Your task to perform on an android device: search for starred emails in the gmail app Image 0: 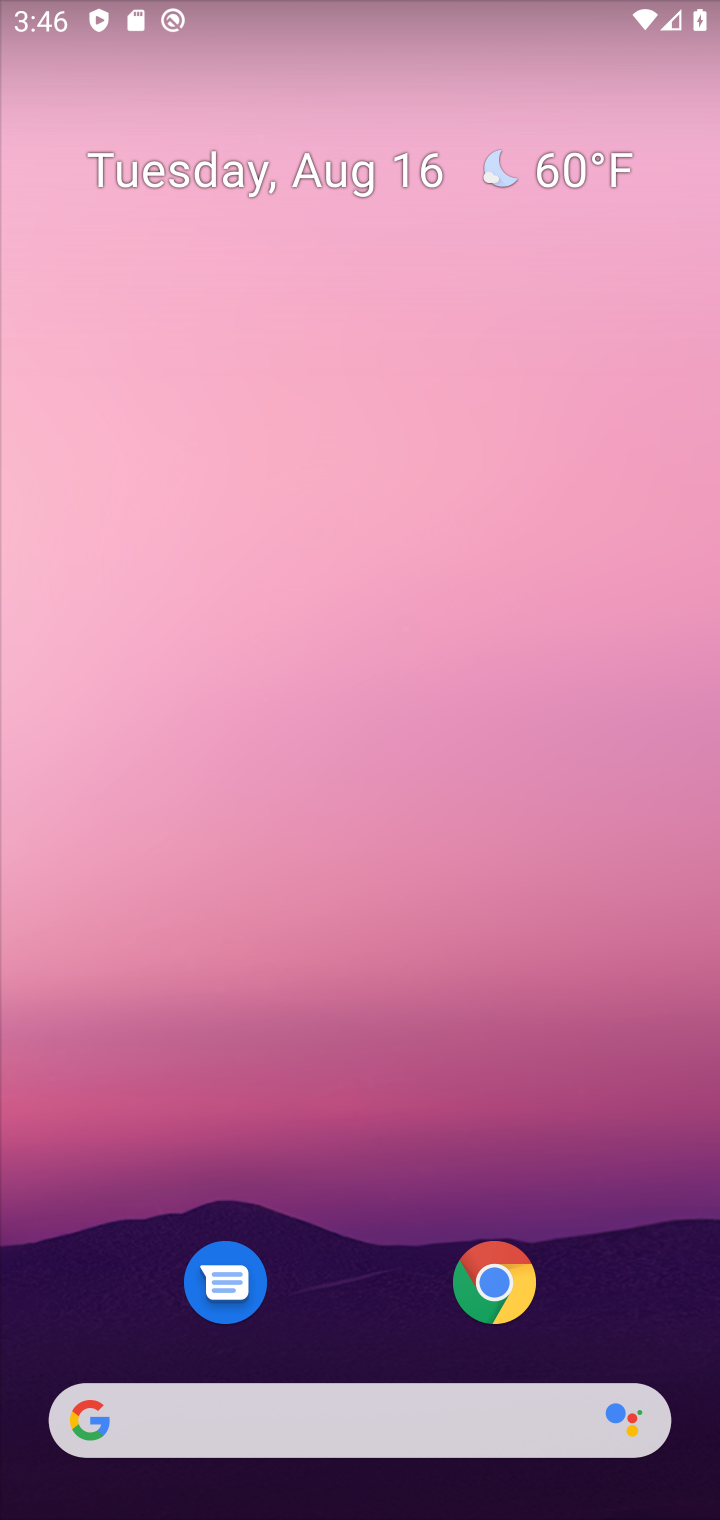
Step 0: drag from (373, 1218) to (523, 123)
Your task to perform on an android device: search for starred emails in the gmail app Image 1: 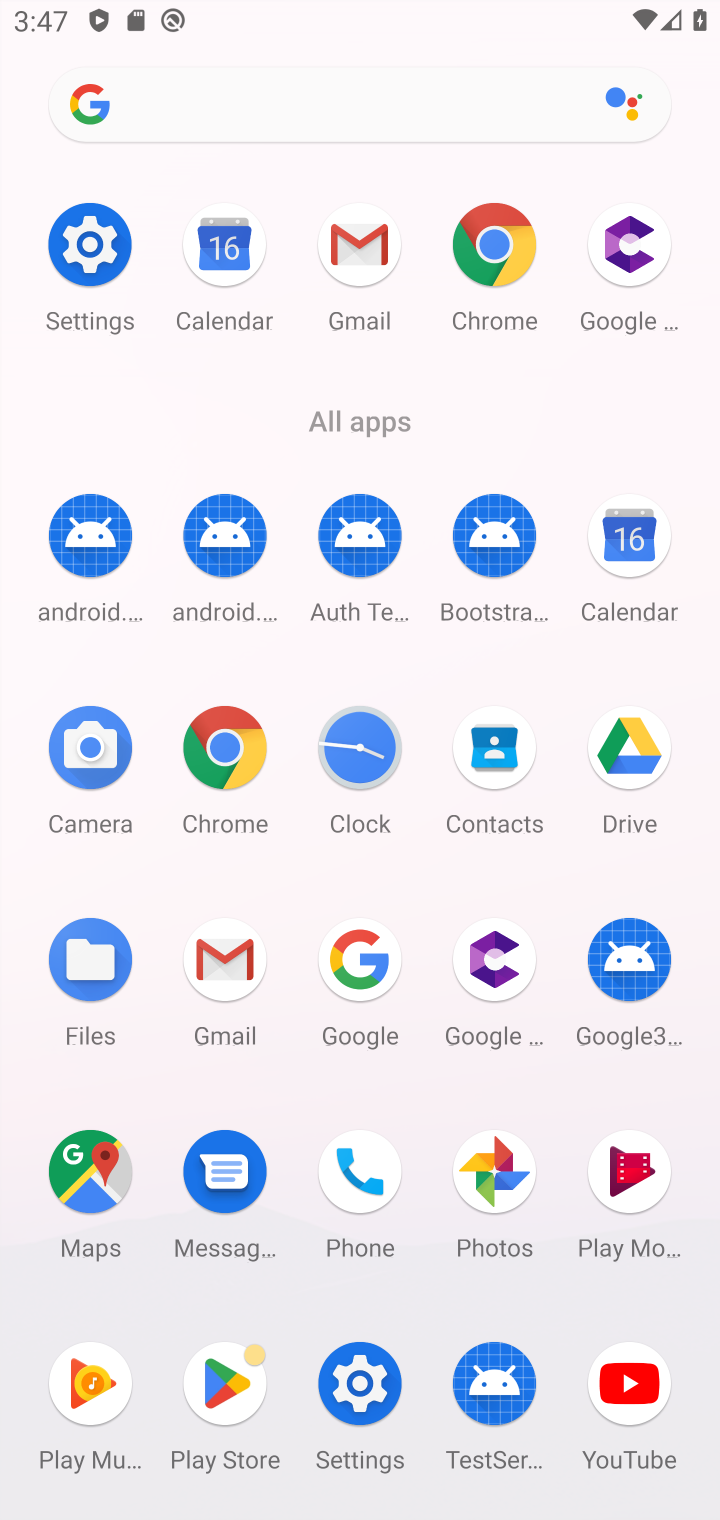
Step 1: click (356, 224)
Your task to perform on an android device: search for starred emails in the gmail app Image 2: 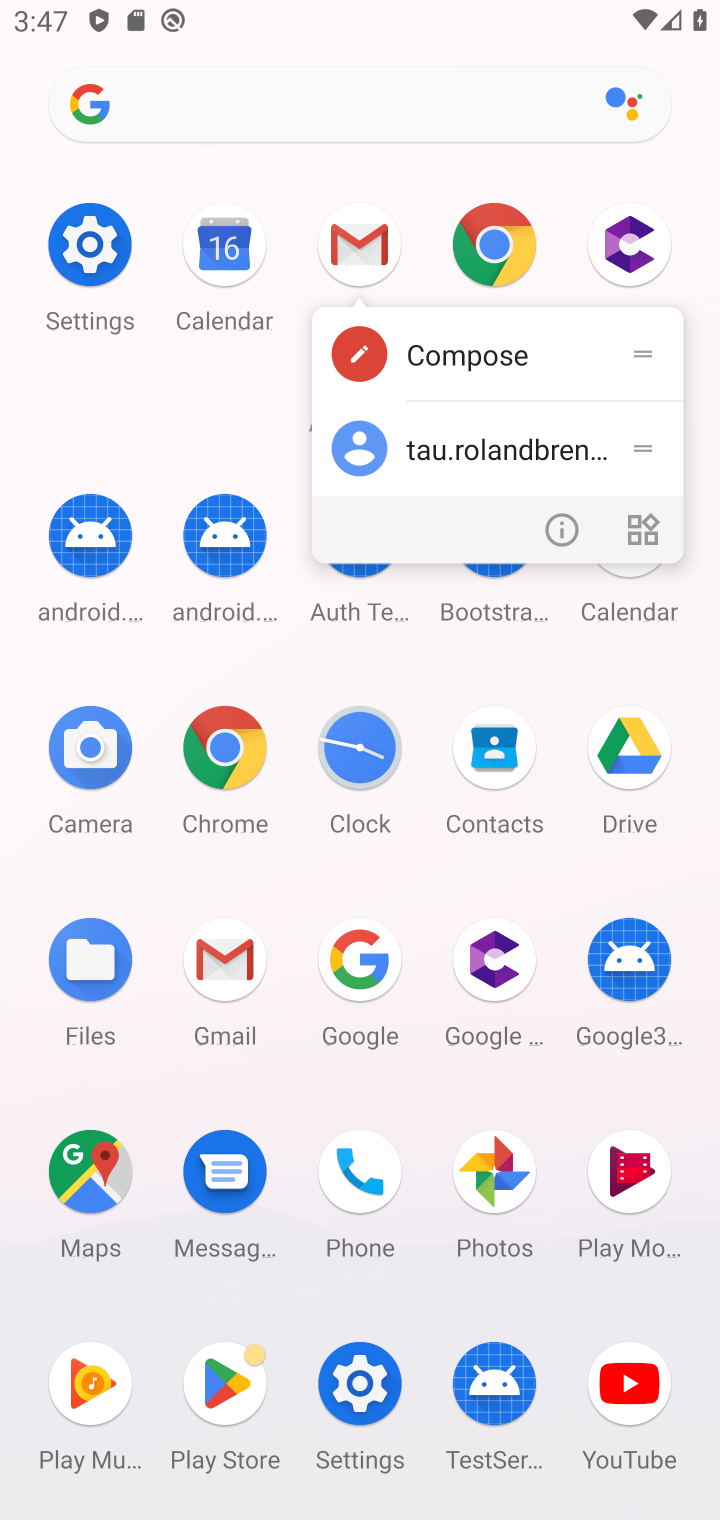
Step 2: click (359, 223)
Your task to perform on an android device: search for starred emails in the gmail app Image 3: 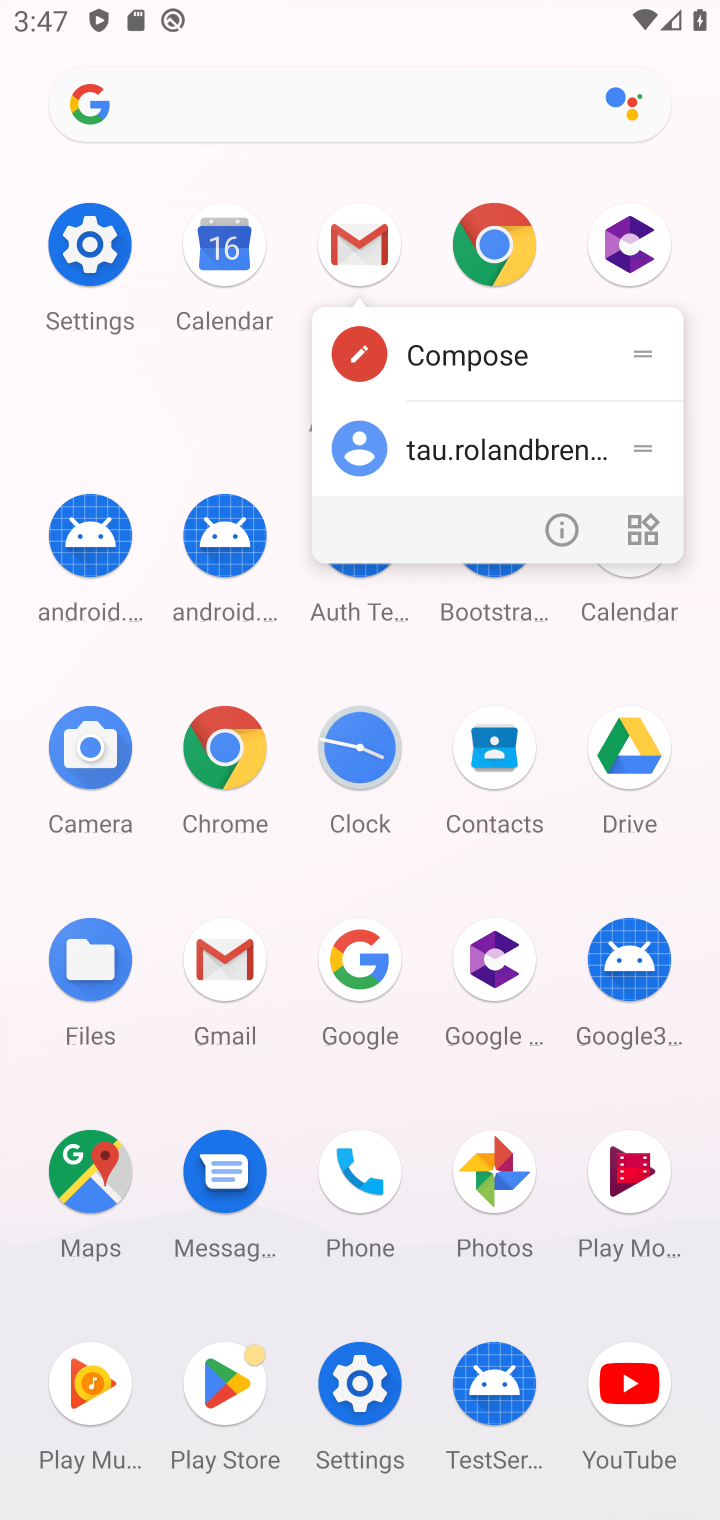
Step 3: click (370, 244)
Your task to perform on an android device: search for starred emails in the gmail app Image 4: 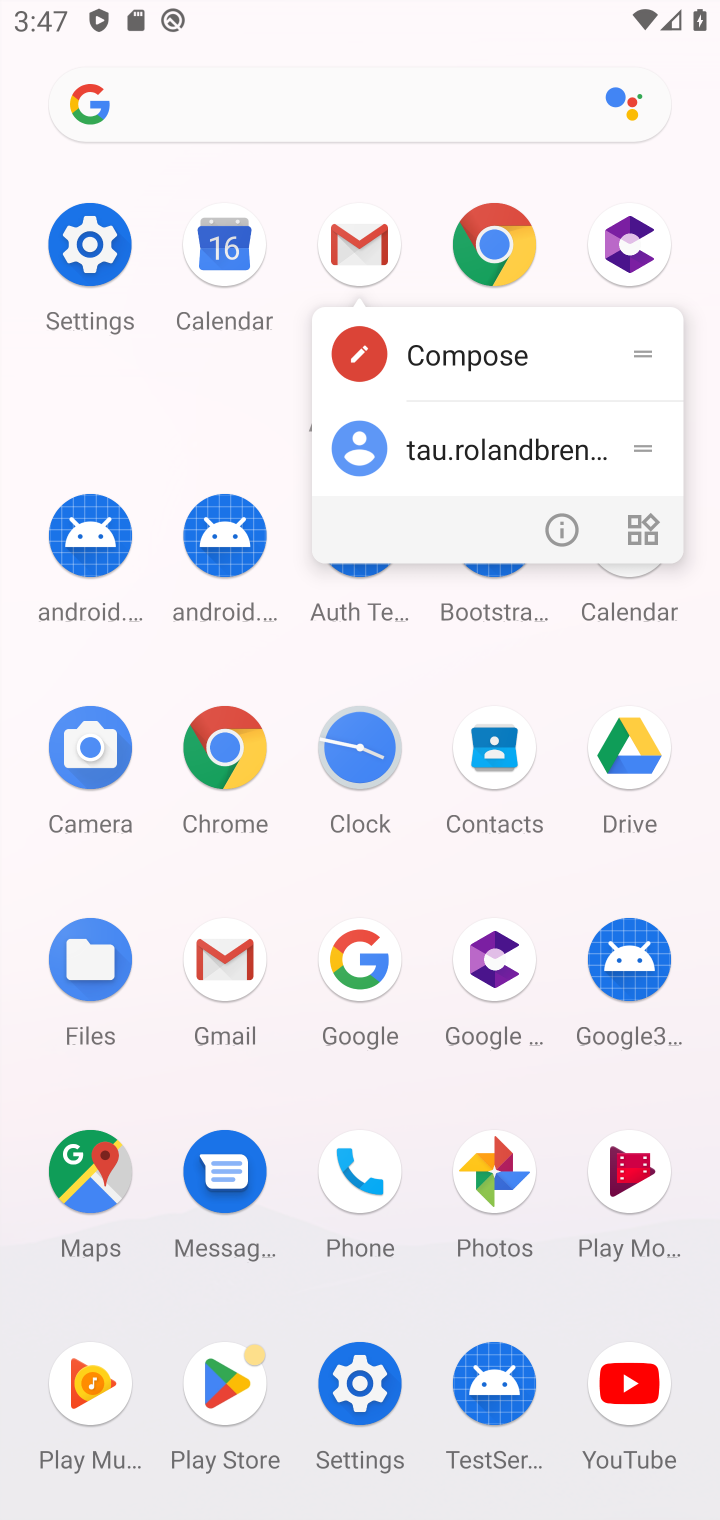
Step 4: click (337, 231)
Your task to perform on an android device: search for starred emails in the gmail app Image 5: 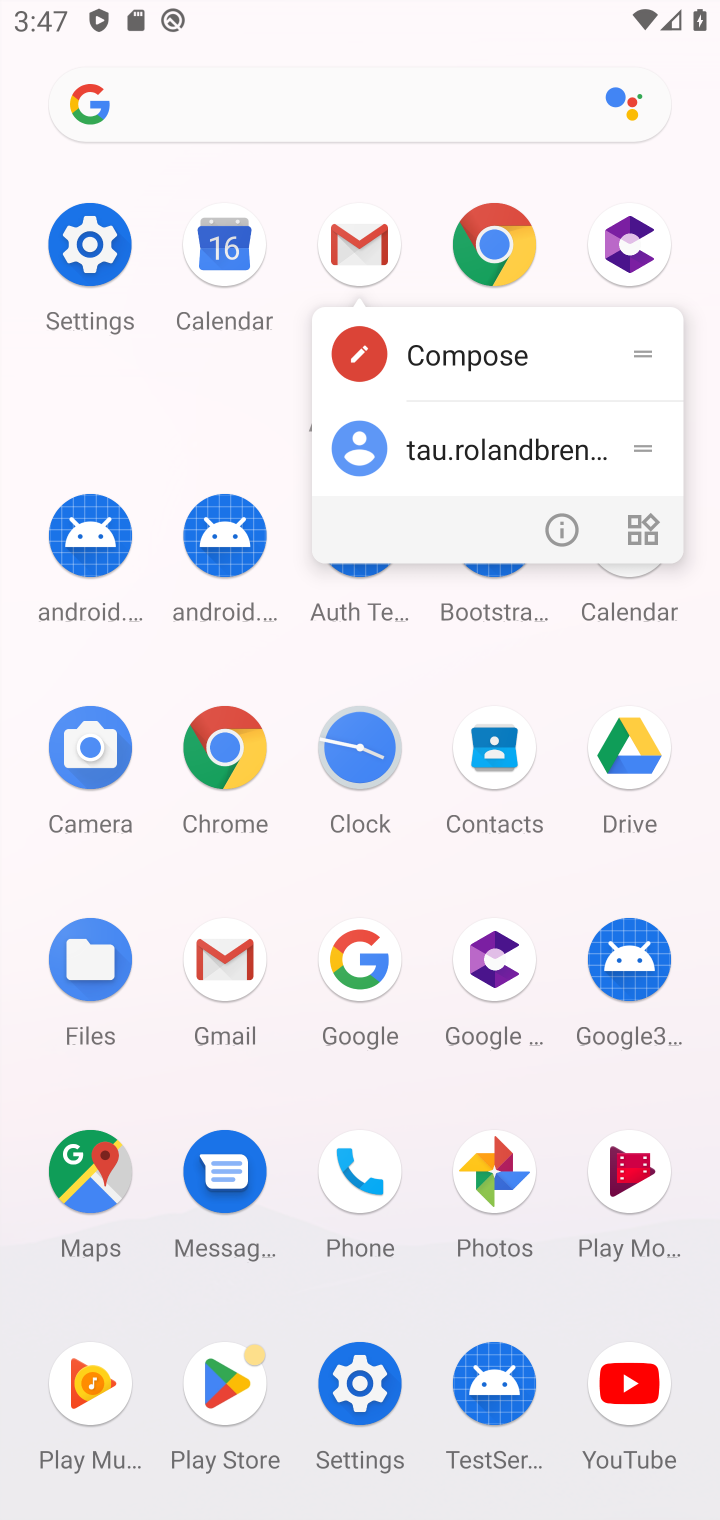
Step 5: click (354, 238)
Your task to perform on an android device: search for starred emails in the gmail app Image 6: 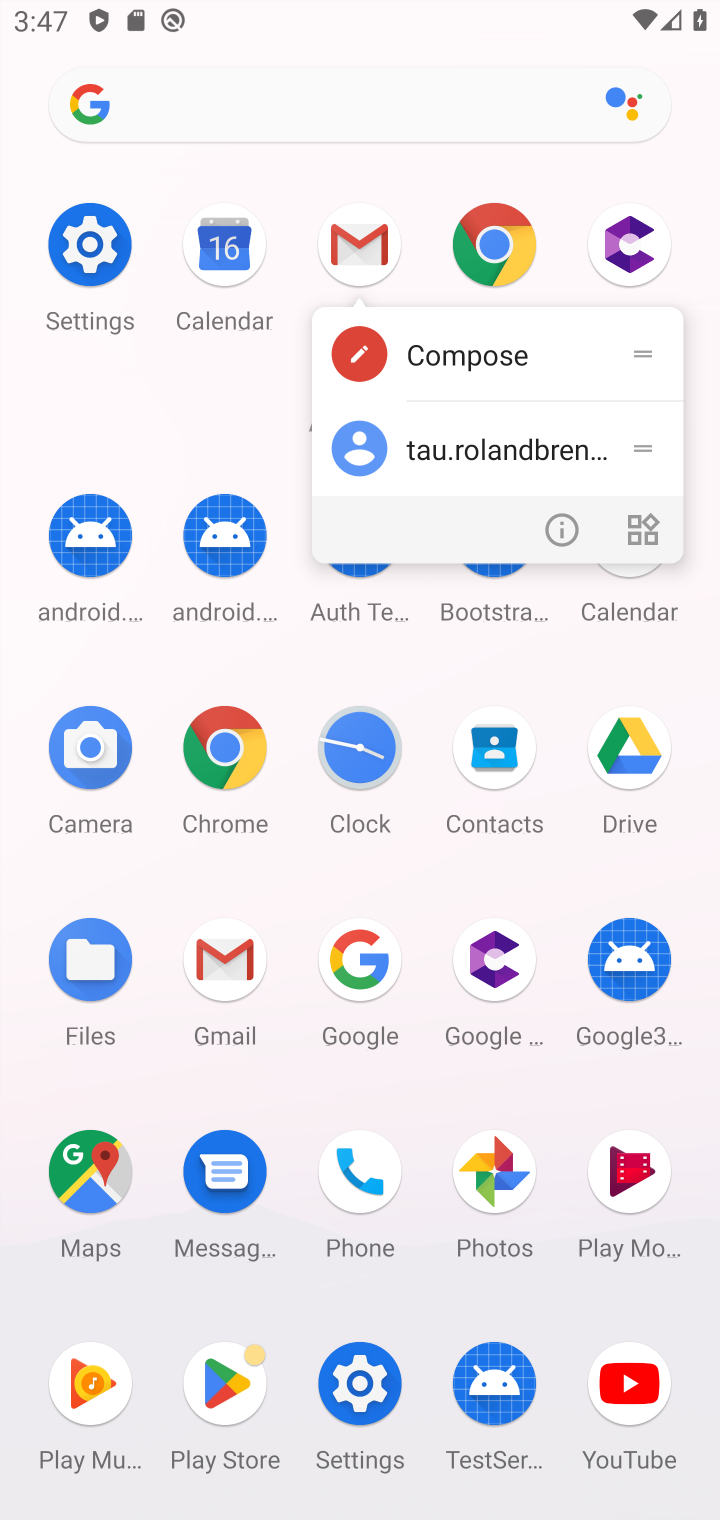
Step 6: click (362, 274)
Your task to perform on an android device: search for starred emails in the gmail app Image 7: 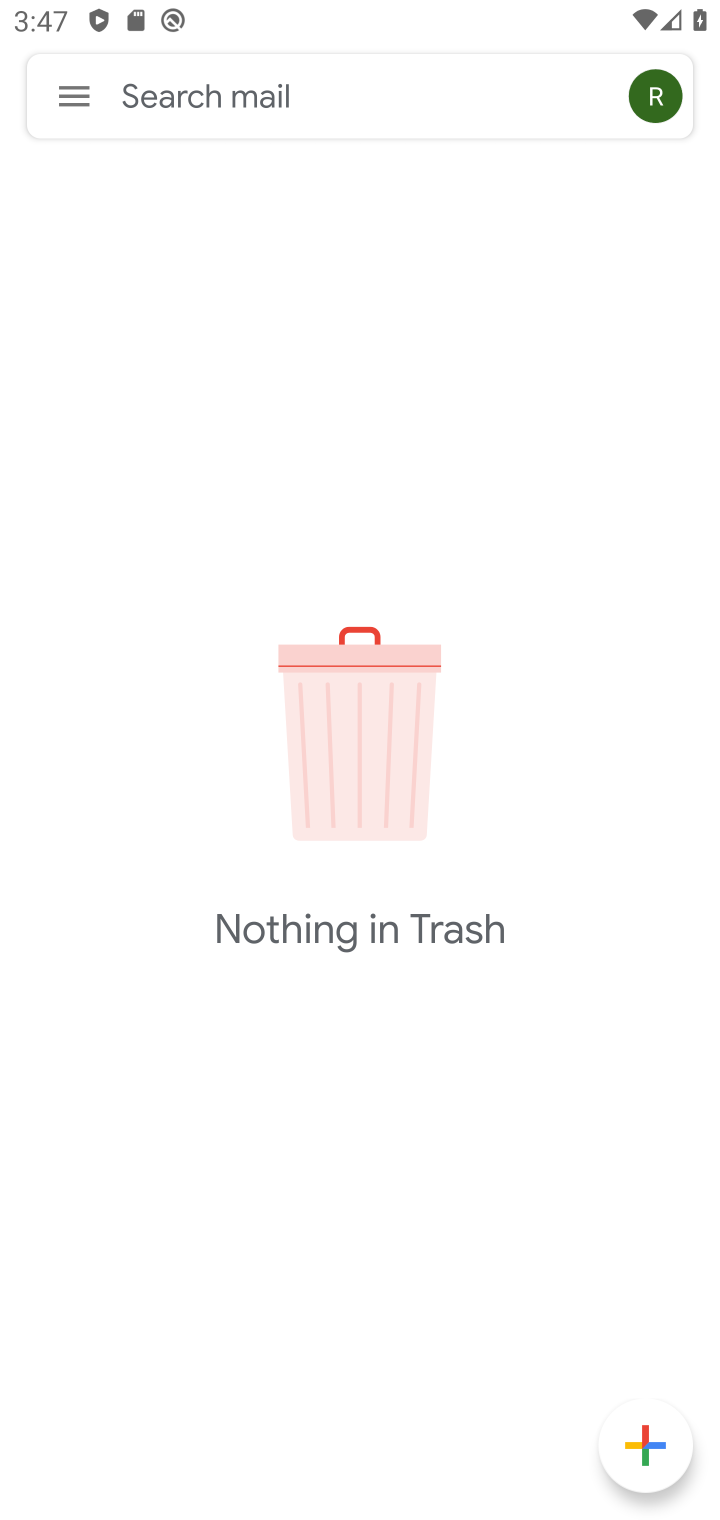
Step 7: click (63, 76)
Your task to perform on an android device: search for starred emails in the gmail app Image 8: 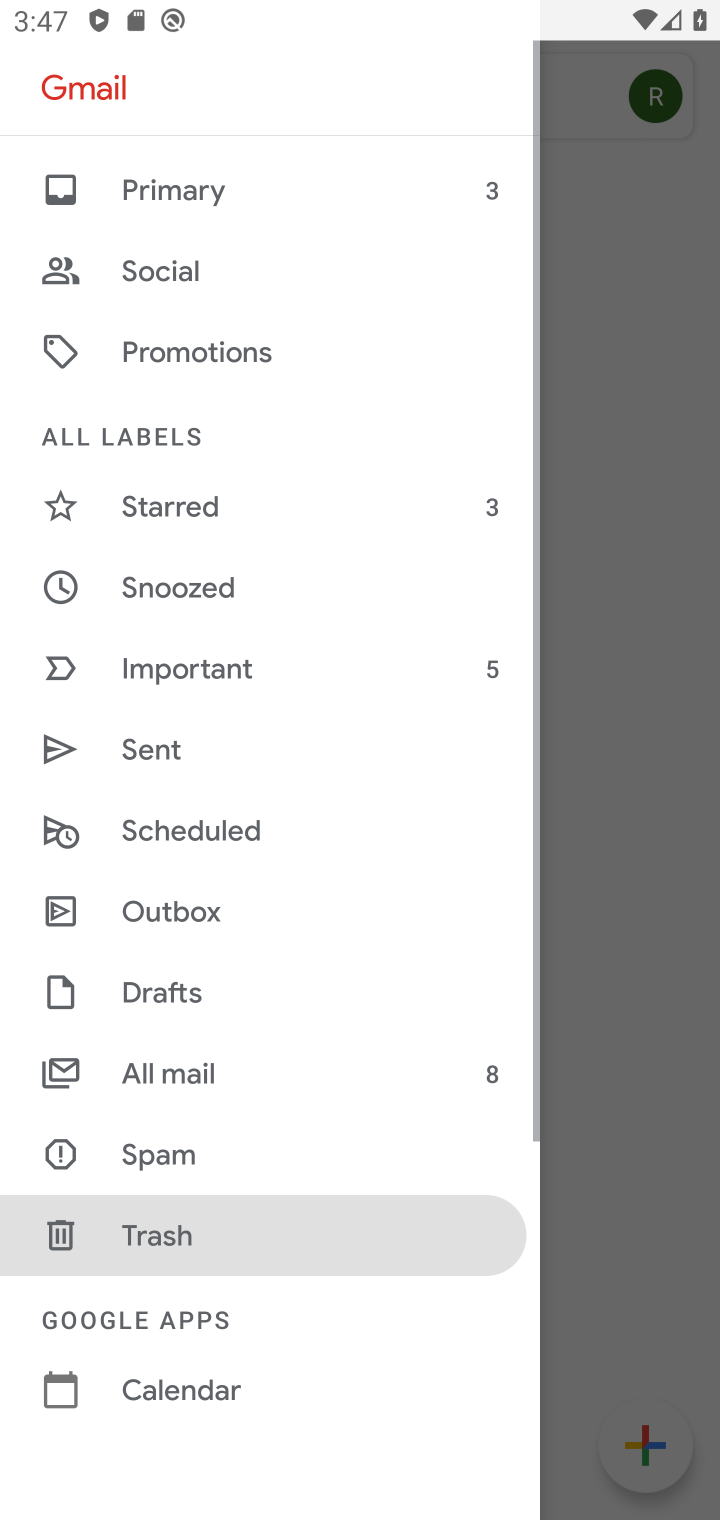
Step 8: click (184, 498)
Your task to perform on an android device: search for starred emails in the gmail app Image 9: 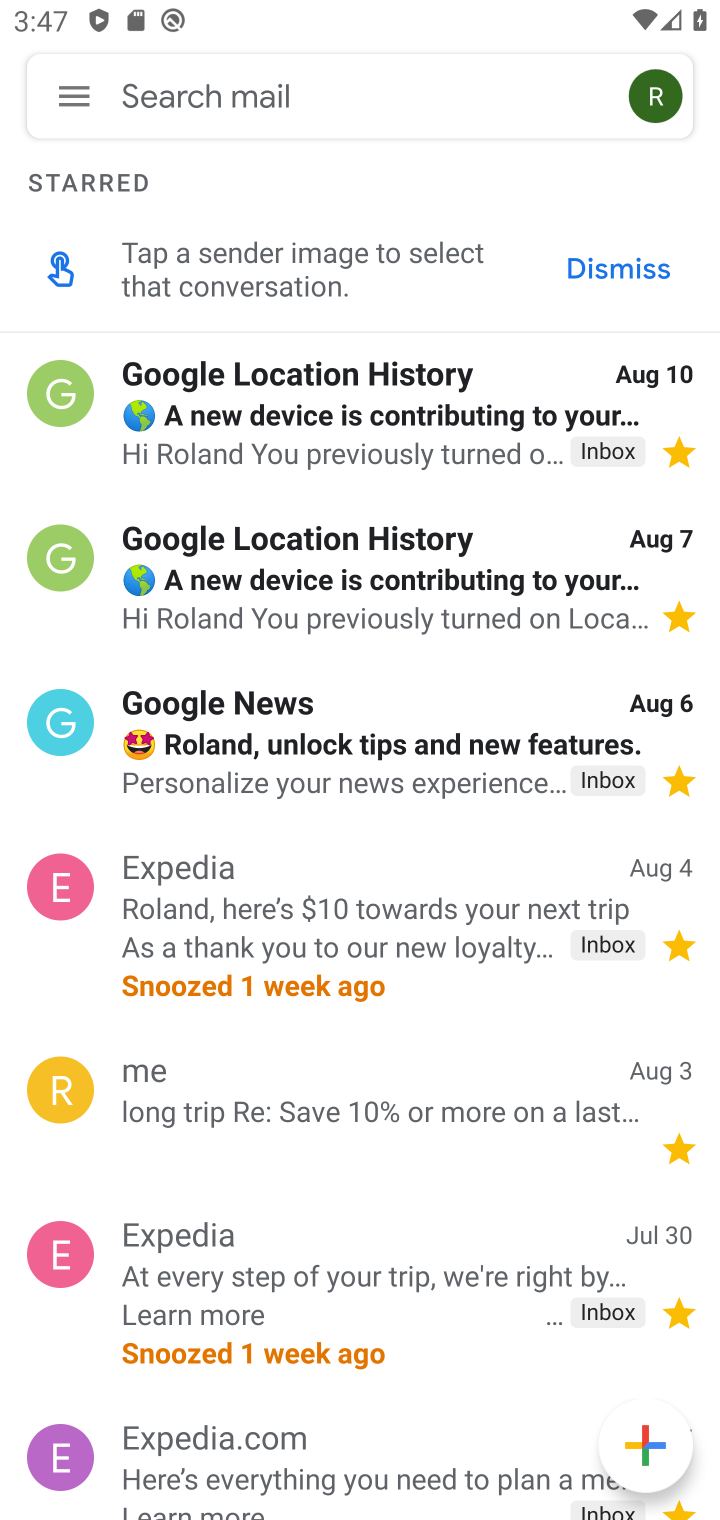
Step 9: click (90, 89)
Your task to perform on an android device: search for starred emails in the gmail app Image 10: 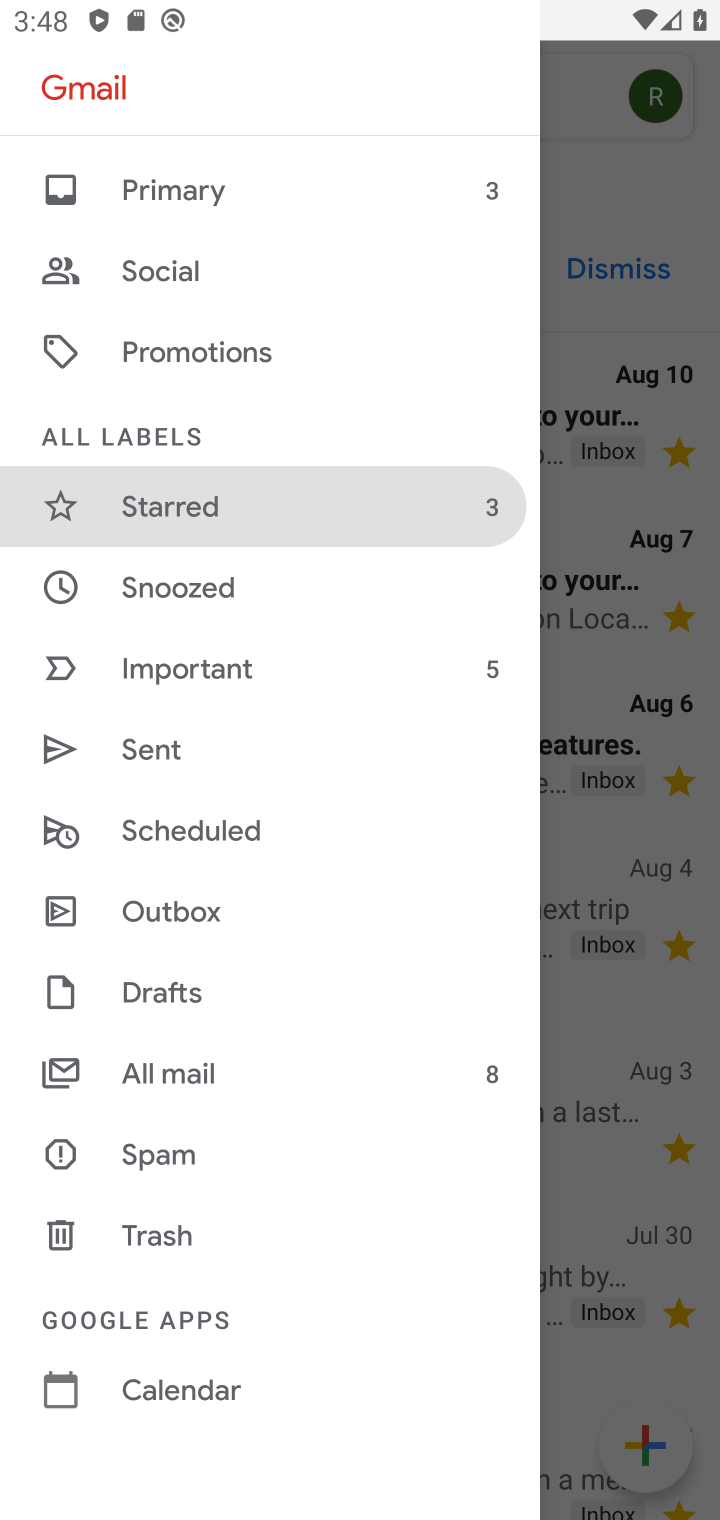
Step 10: click (319, 509)
Your task to perform on an android device: search for starred emails in the gmail app Image 11: 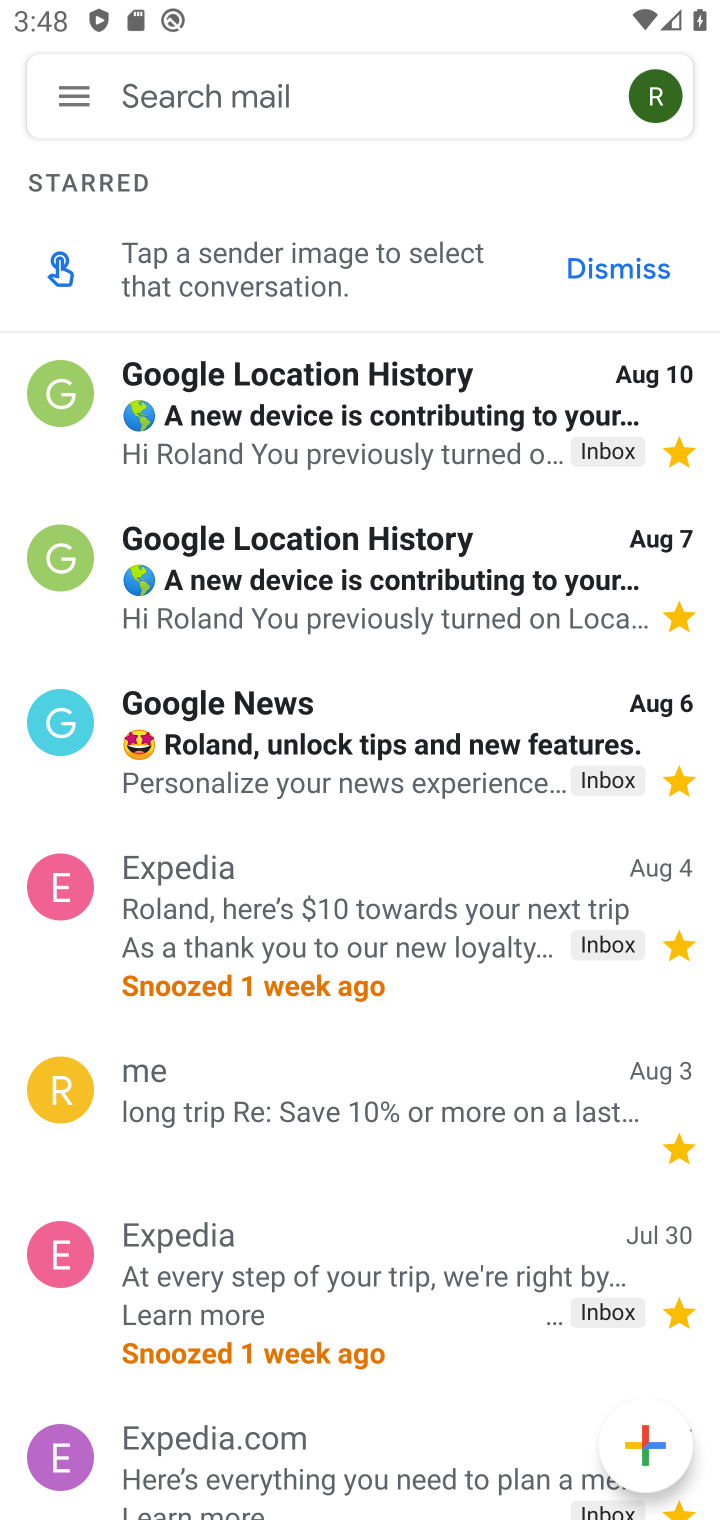
Step 11: task complete